Your task to perform on an android device: Search for sushi restaurants on Maps Image 0: 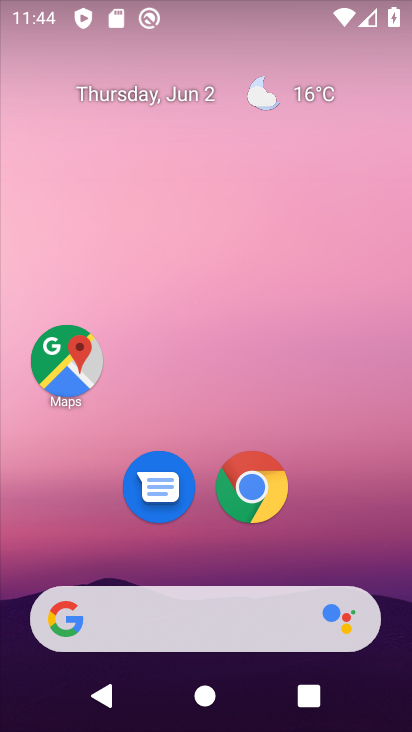
Step 0: click (62, 375)
Your task to perform on an android device: Search for sushi restaurants on Maps Image 1: 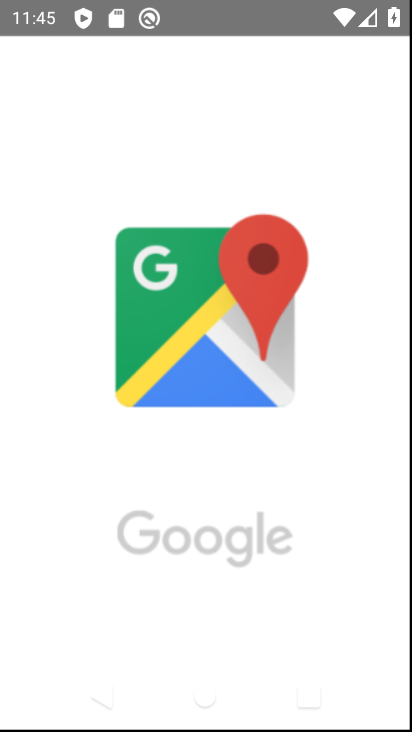
Step 1: press home button
Your task to perform on an android device: Search for sushi restaurants on Maps Image 2: 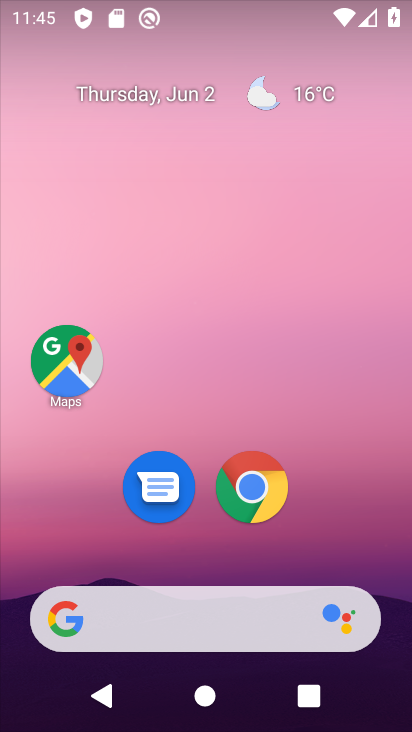
Step 2: drag from (230, 548) to (236, 4)
Your task to perform on an android device: Search for sushi restaurants on Maps Image 3: 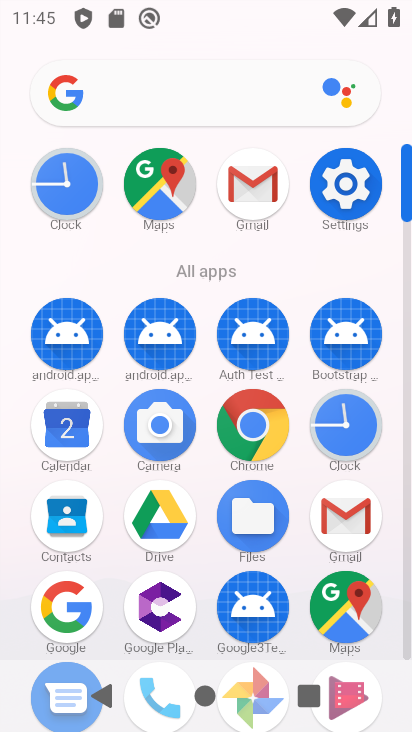
Step 3: click (153, 175)
Your task to perform on an android device: Search for sushi restaurants on Maps Image 4: 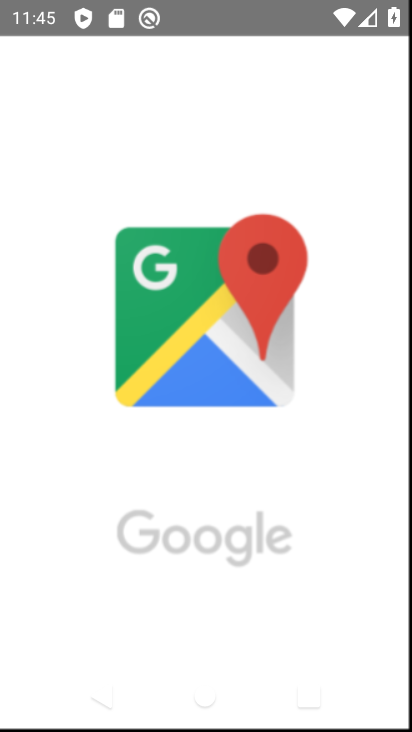
Step 4: task complete